Your task to perform on an android device: turn vacation reply on in the gmail app Image 0: 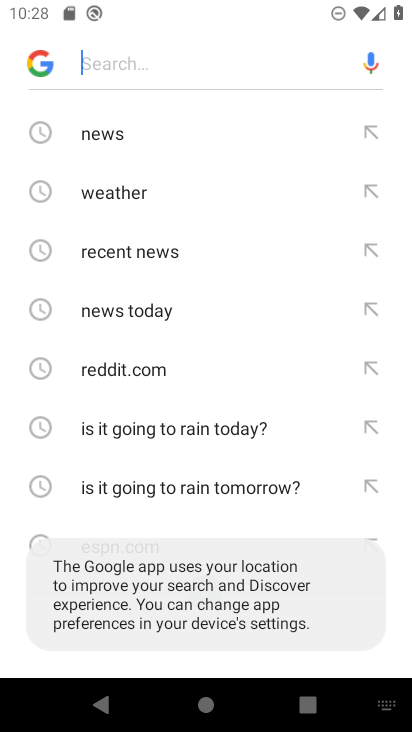
Step 0: press home button
Your task to perform on an android device: turn vacation reply on in the gmail app Image 1: 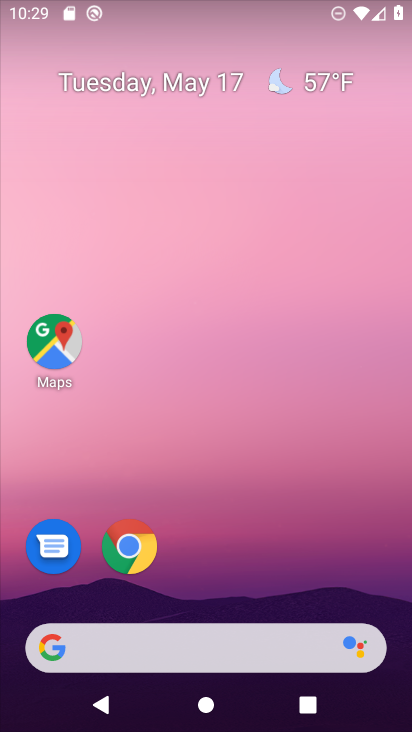
Step 1: drag from (366, 606) to (319, 30)
Your task to perform on an android device: turn vacation reply on in the gmail app Image 2: 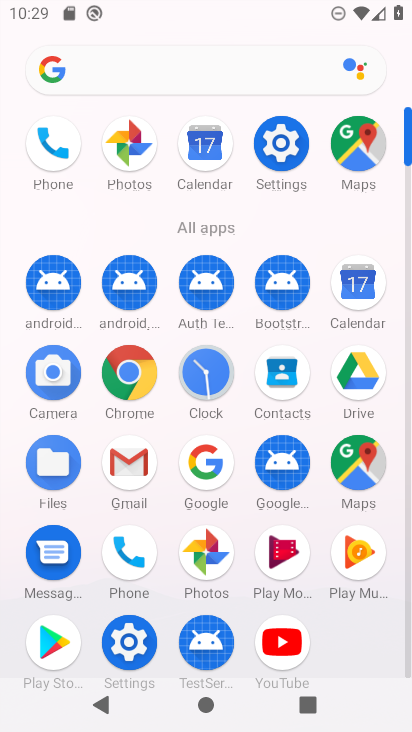
Step 2: click (132, 482)
Your task to perform on an android device: turn vacation reply on in the gmail app Image 3: 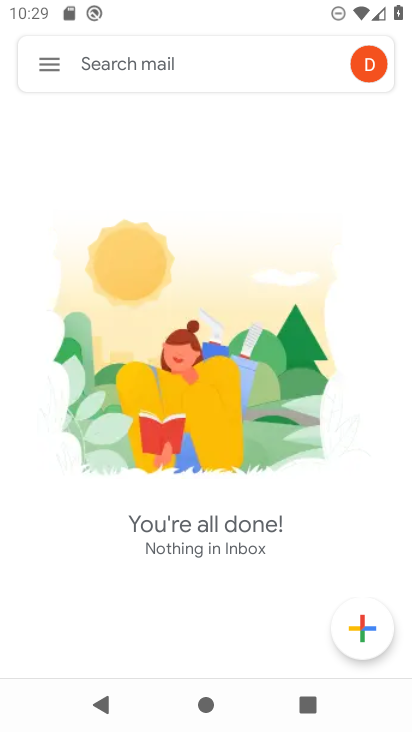
Step 3: click (49, 72)
Your task to perform on an android device: turn vacation reply on in the gmail app Image 4: 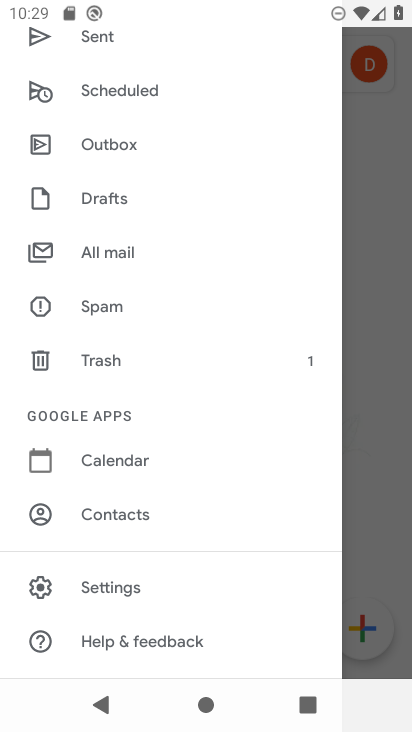
Step 4: click (139, 591)
Your task to perform on an android device: turn vacation reply on in the gmail app Image 5: 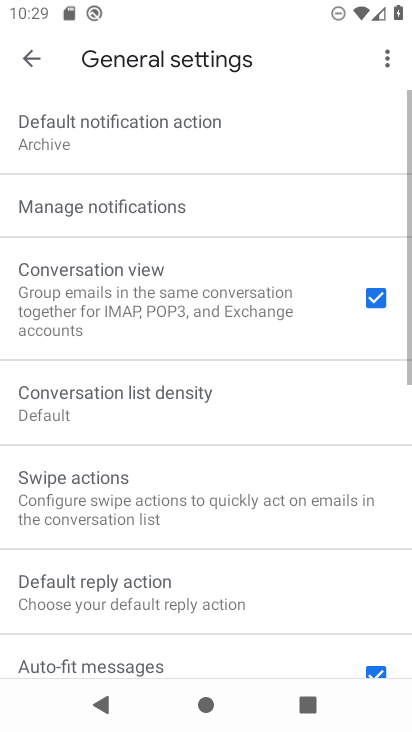
Step 5: click (188, 582)
Your task to perform on an android device: turn vacation reply on in the gmail app Image 6: 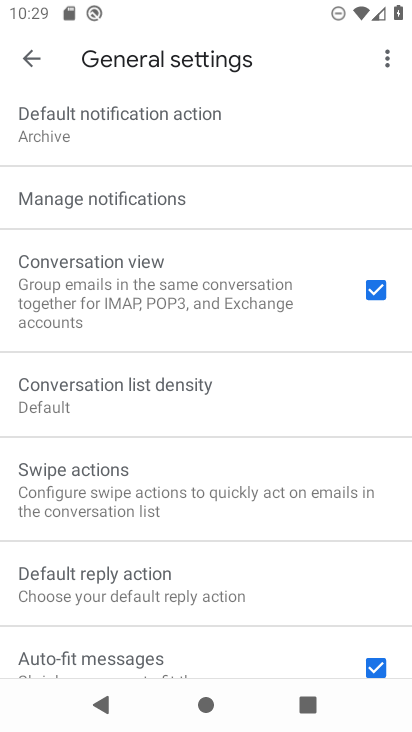
Step 6: click (32, 53)
Your task to perform on an android device: turn vacation reply on in the gmail app Image 7: 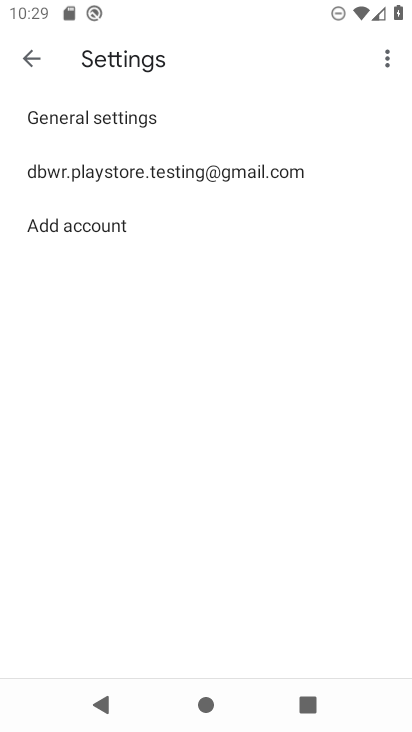
Step 7: click (87, 176)
Your task to perform on an android device: turn vacation reply on in the gmail app Image 8: 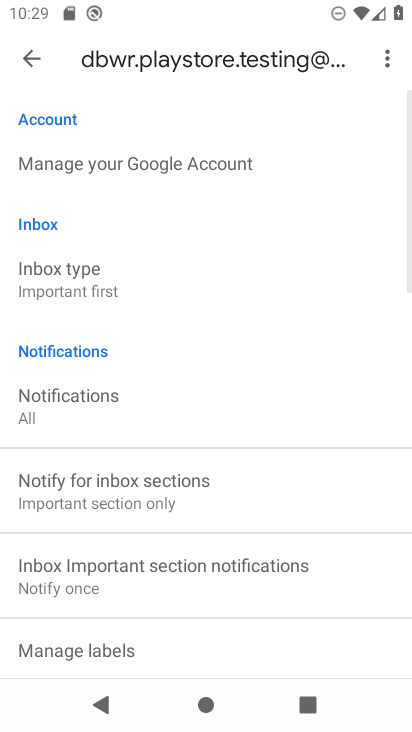
Step 8: drag from (186, 529) to (152, 119)
Your task to perform on an android device: turn vacation reply on in the gmail app Image 9: 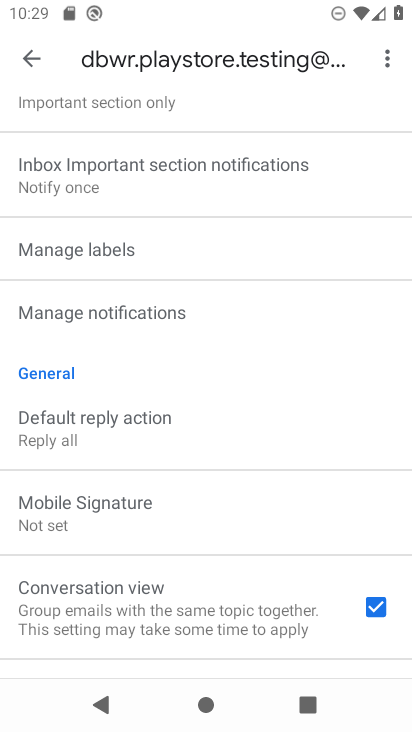
Step 9: drag from (188, 518) to (140, 123)
Your task to perform on an android device: turn vacation reply on in the gmail app Image 10: 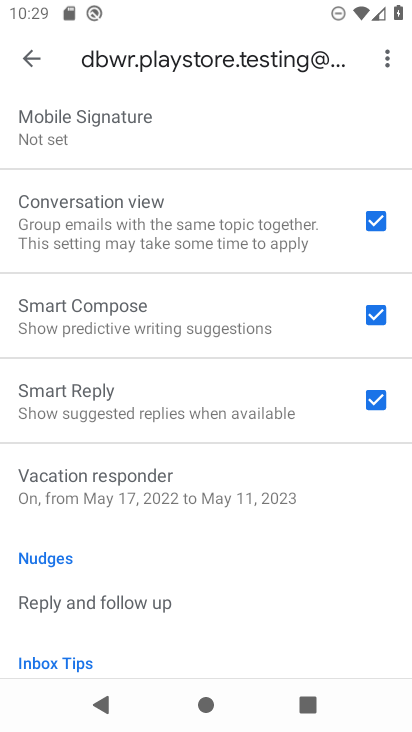
Step 10: click (91, 478)
Your task to perform on an android device: turn vacation reply on in the gmail app Image 11: 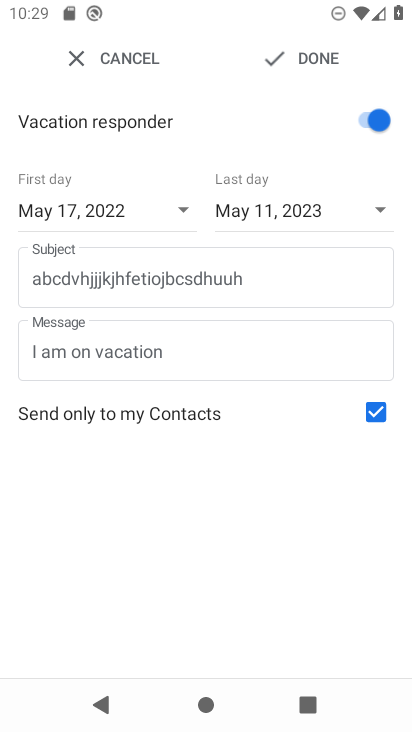
Step 11: click (296, 56)
Your task to perform on an android device: turn vacation reply on in the gmail app Image 12: 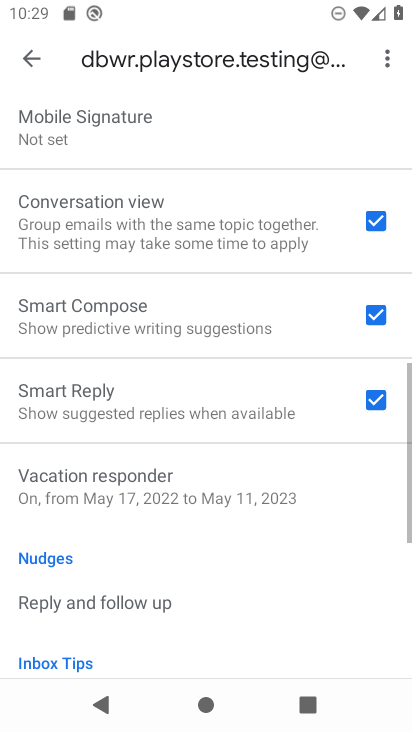
Step 12: task complete